Your task to perform on an android device: Search for the best Mexican restaurants Image 0: 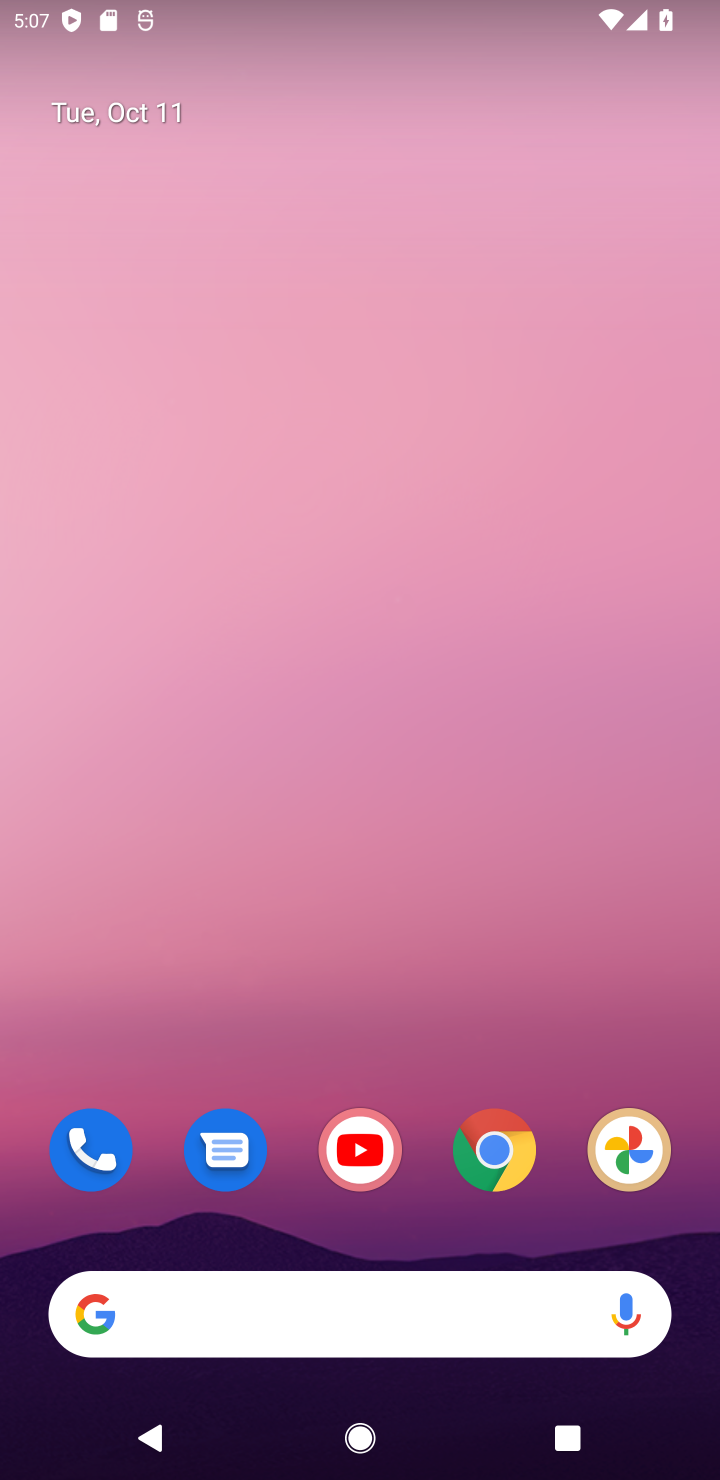
Step 0: click (503, 1148)
Your task to perform on an android device: Search for the best Mexican restaurants Image 1: 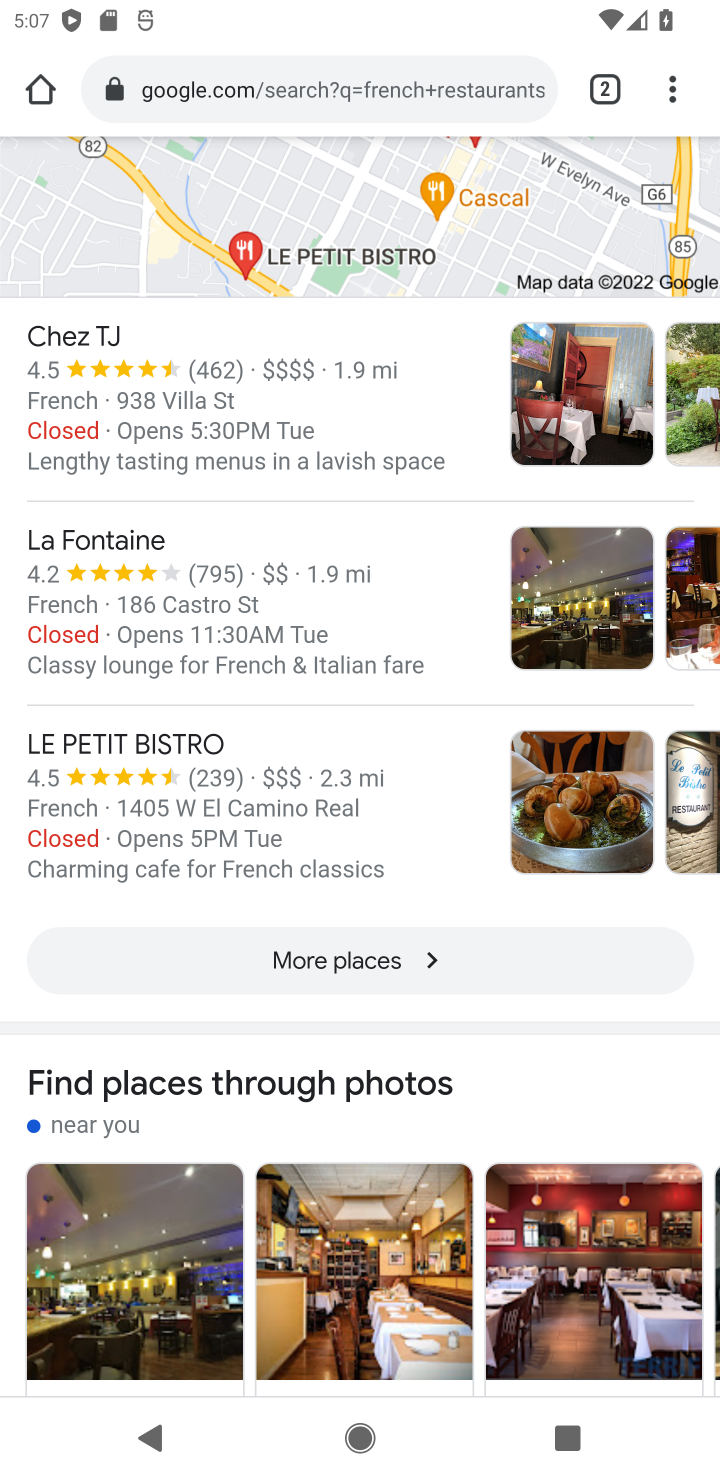
Step 1: click (285, 92)
Your task to perform on an android device: Search for the best Mexican restaurants Image 2: 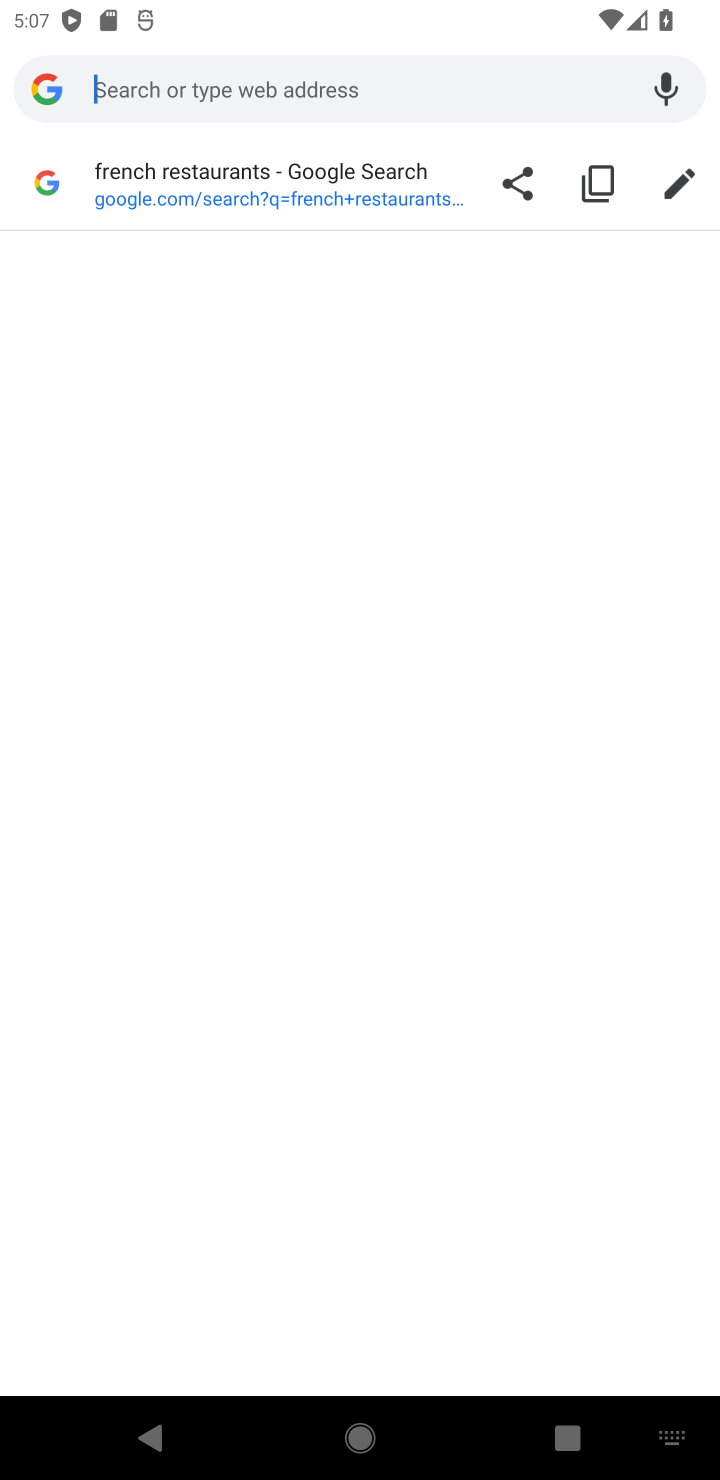
Step 2: type "best Mexican restaurants"
Your task to perform on an android device: Search for the best Mexican restaurants Image 3: 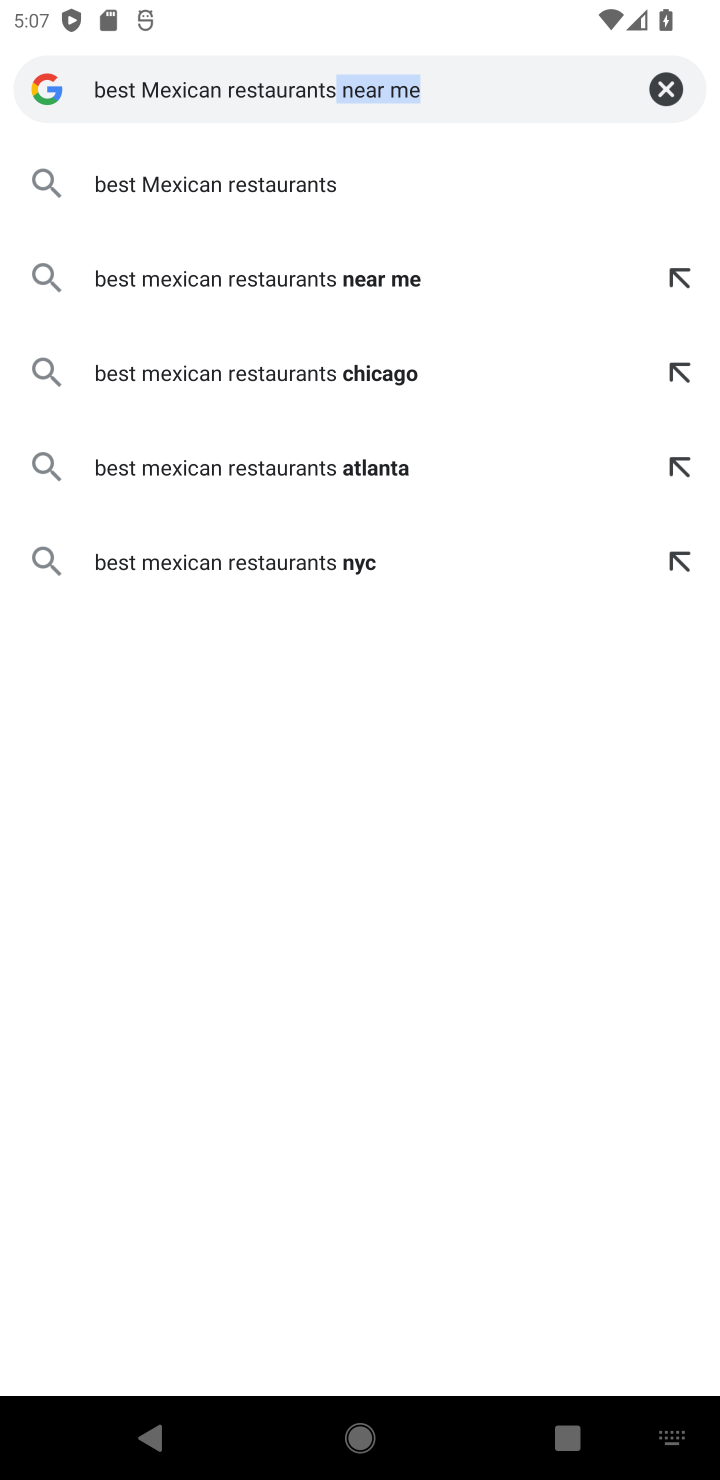
Step 3: click (245, 185)
Your task to perform on an android device: Search for the best Mexican restaurants Image 4: 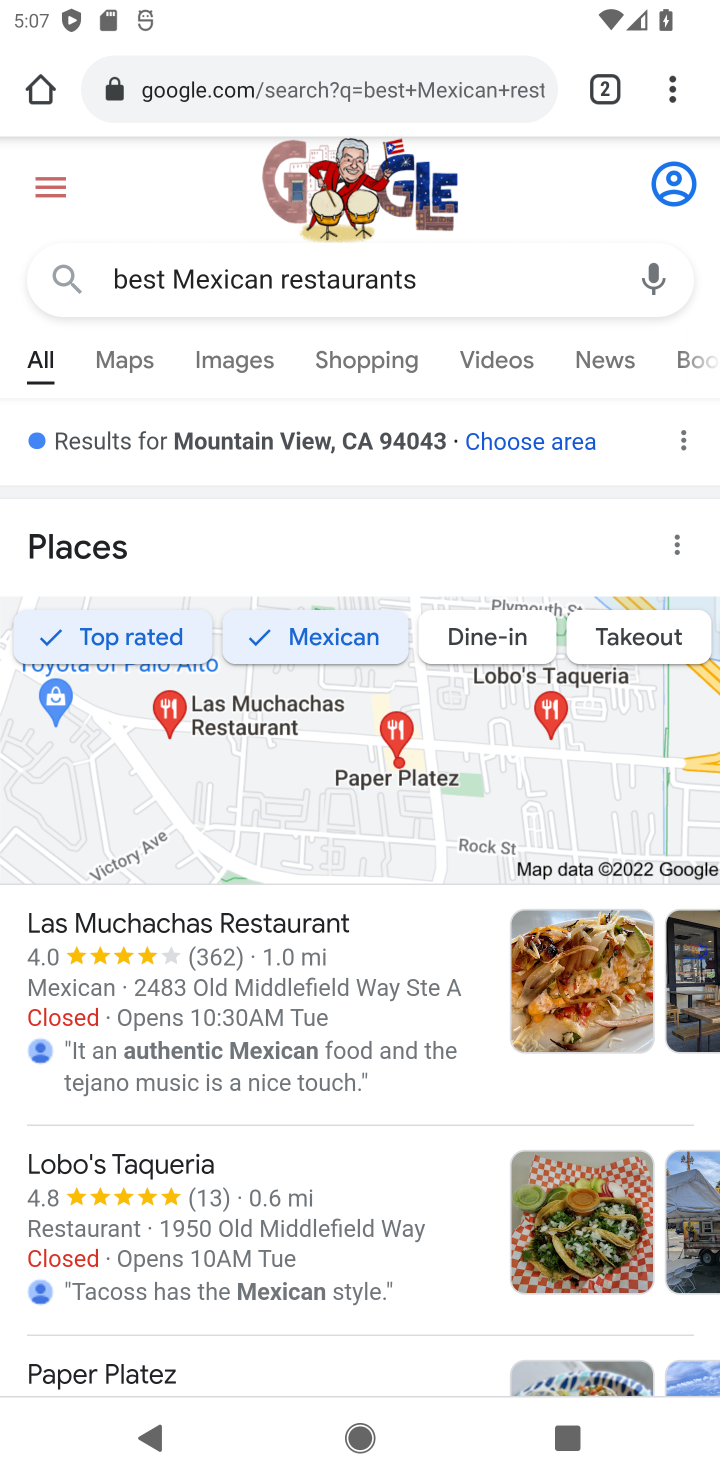
Step 4: task complete